Your task to perform on an android device: turn off location Image 0: 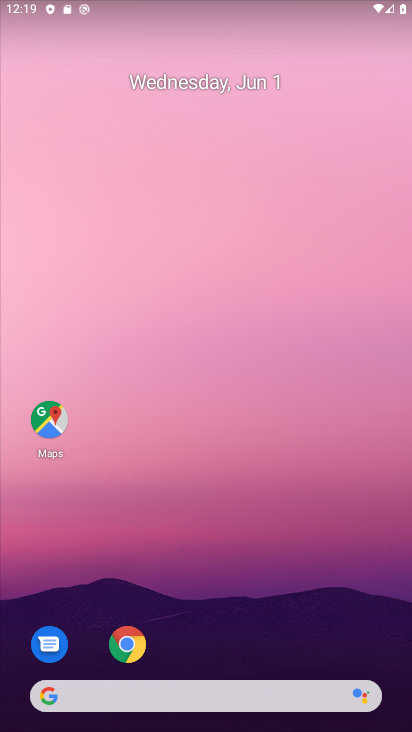
Step 0: press home button
Your task to perform on an android device: turn off location Image 1: 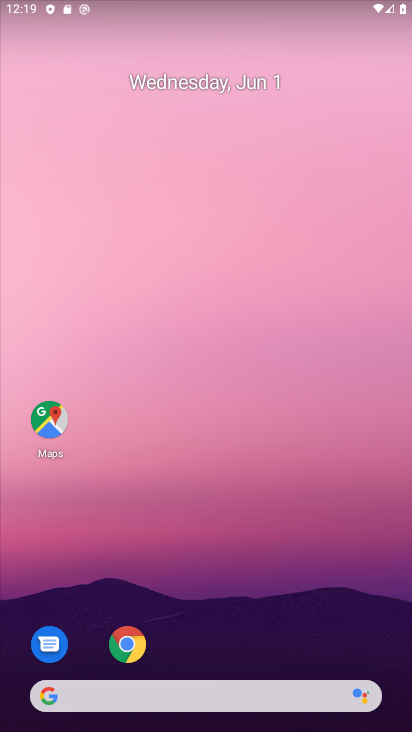
Step 1: drag from (254, 599) to (411, 104)
Your task to perform on an android device: turn off location Image 2: 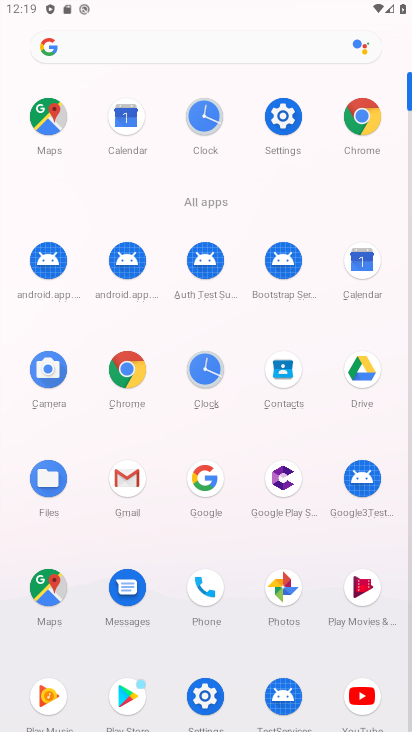
Step 2: click (275, 128)
Your task to perform on an android device: turn off location Image 3: 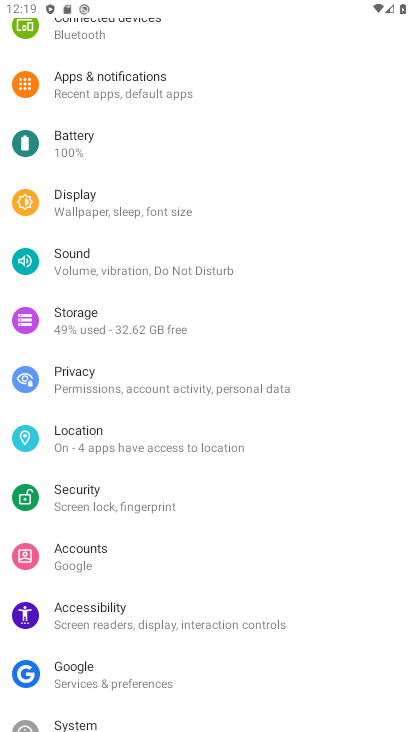
Step 3: click (92, 431)
Your task to perform on an android device: turn off location Image 4: 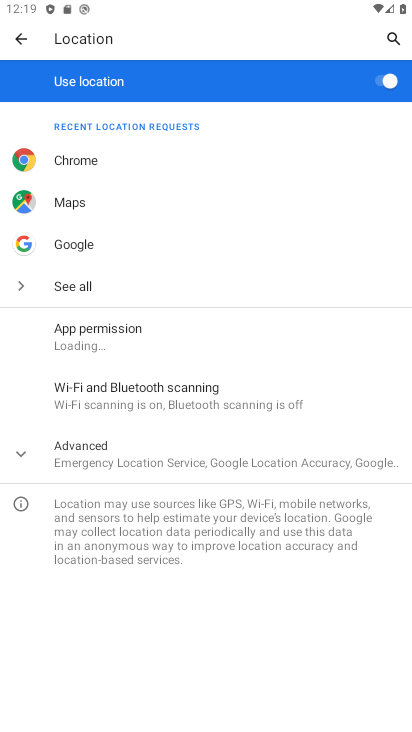
Step 4: click (307, 86)
Your task to perform on an android device: turn off location Image 5: 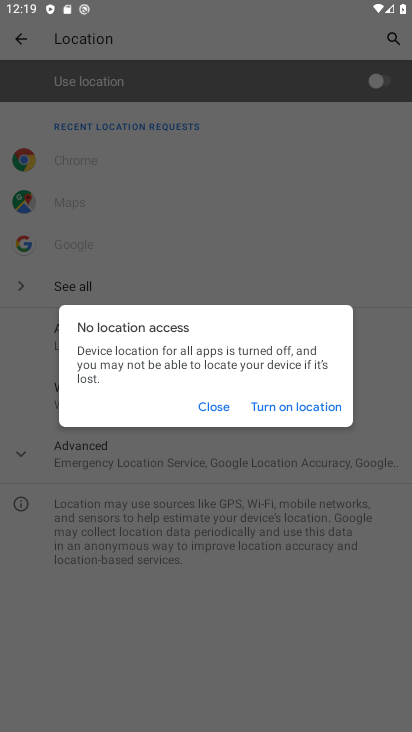
Step 5: click (216, 410)
Your task to perform on an android device: turn off location Image 6: 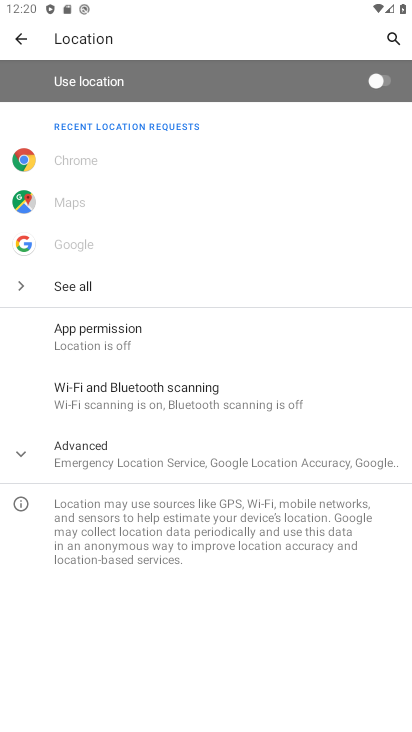
Step 6: task complete